Your task to perform on an android device: Open settings on Google Maps Image 0: 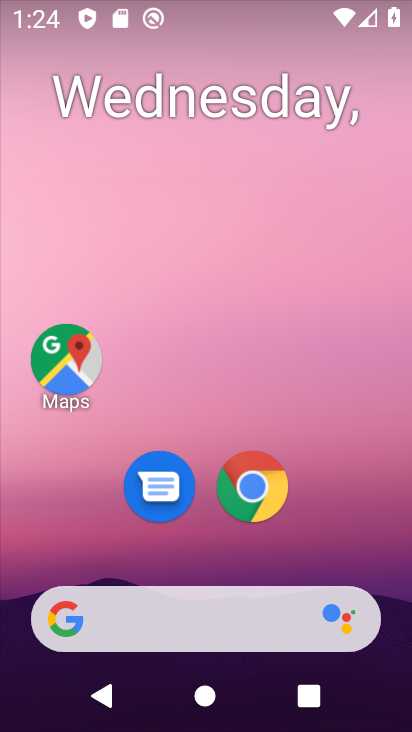
Step 0: drag from (202, 449) to (203, 94)
Your task to perform on an android device: Open settings on Google Maps Image 1: 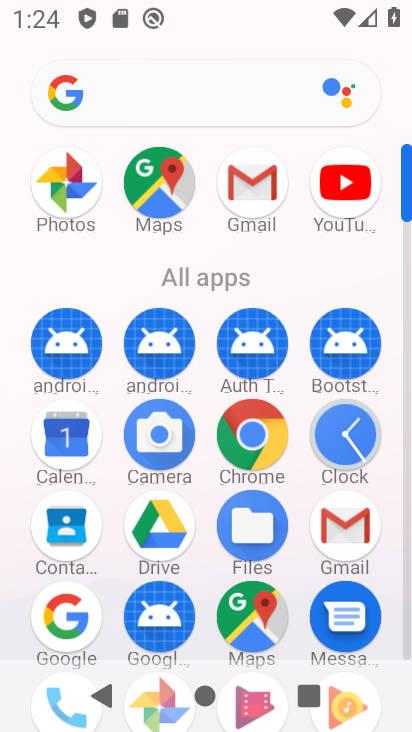
Step 1: drag from (211, 553) to (223, 80)
Your task to perform on an android device: Open settings on Google Maps Image 2: 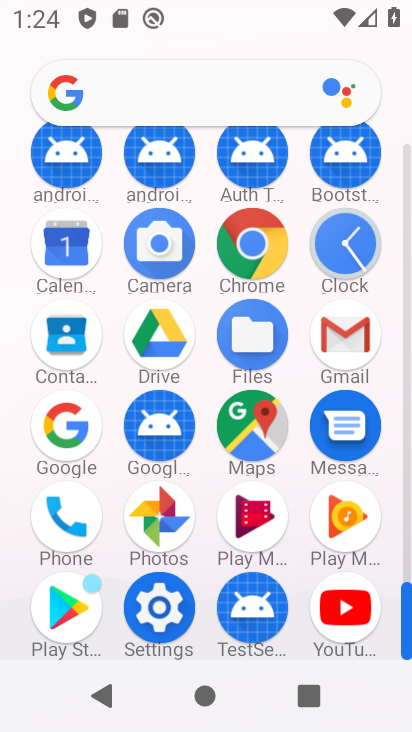
Step 2: click (145, 622)
Your task to perform on an android device: Open settings on Google Maps Image 3: 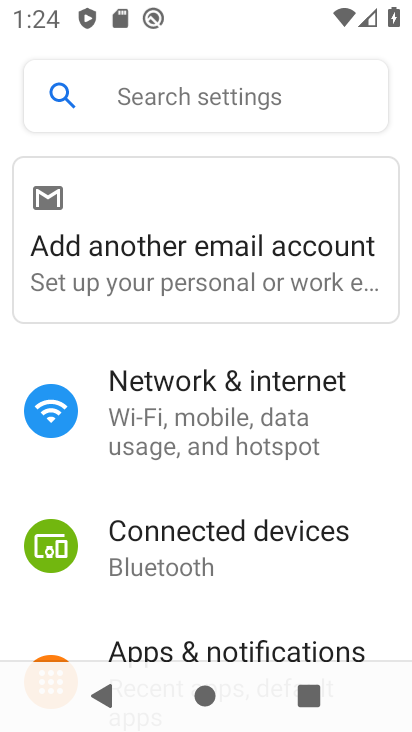
Step 3: press back button
Your task to perform on an android device: Open settings on Google Maps Image 4: 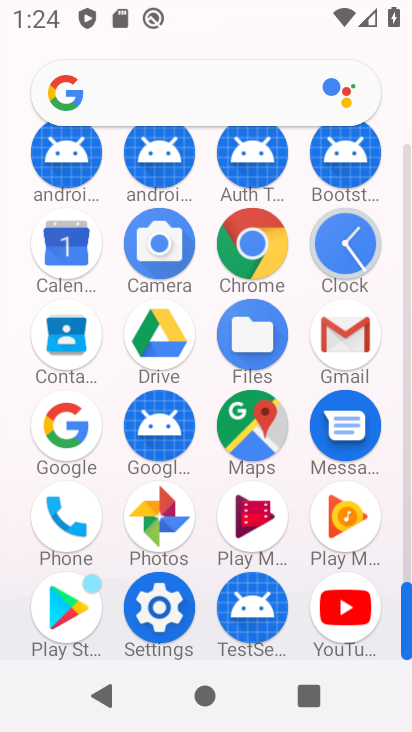
Step 4: click (257, 417)
Your task to perform on an android device: Open settings on Google Maps Image 5: 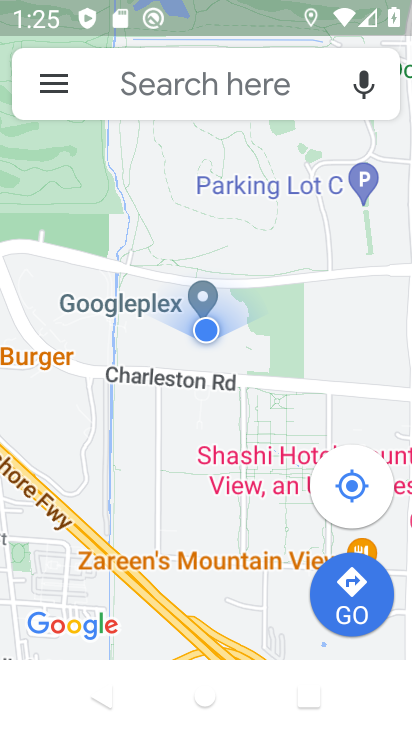
Step 5: task complete